Your task to perform on an android device: turn on translation in the chrome app Image 0: 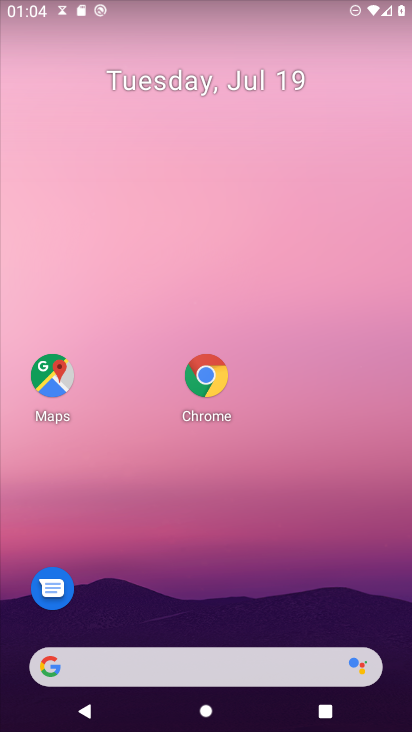
Step 0: press home button
Your task to perform on an android device: turn on translation in the chrome app Image 1: 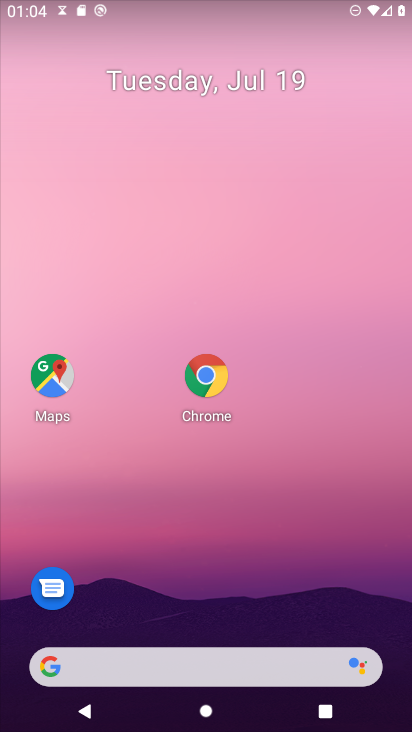
Step 1: click (207, 367)
Your task to perform on an android device: turn on translation in the chrome app Image 2: 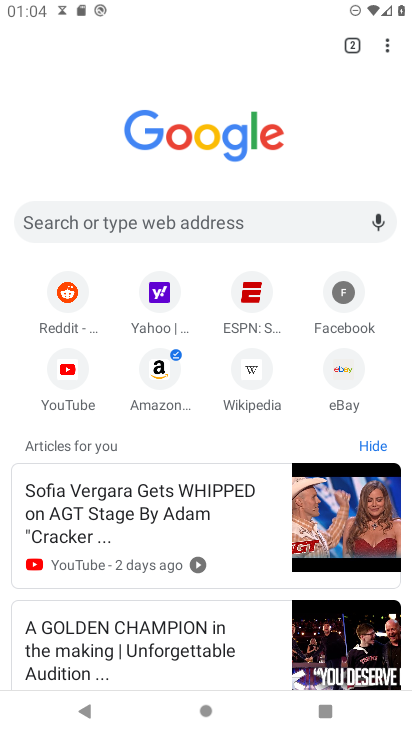
Step 2: drag from (384, 44) to (229, 377)
Your task to perform on an android device: turn on translation in the chrome app Image 3: 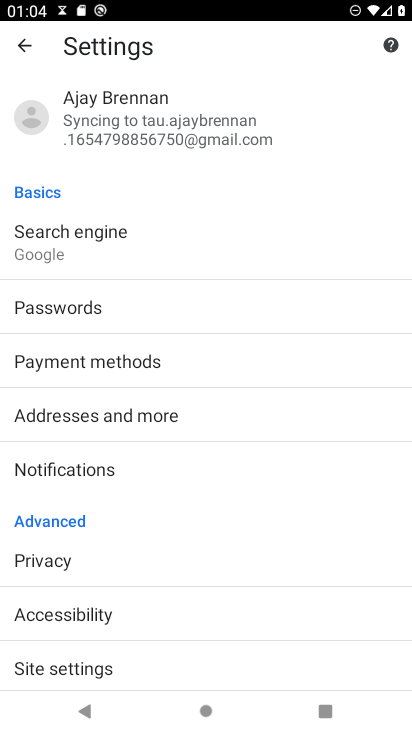
Step 3: drag from (132, 521) to (143, 94)
Your task to perform on an android device: turn on translation in the chrome app Image 4: 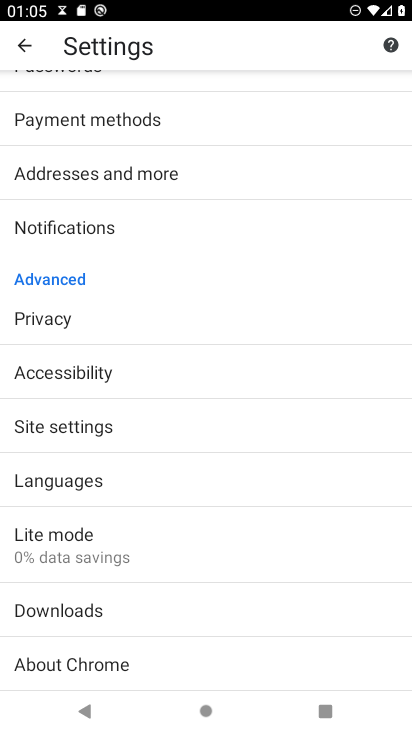
Step 4: click (95, 482)
Your task to perform on an android device: turn on translation in the chrome app Image 5: 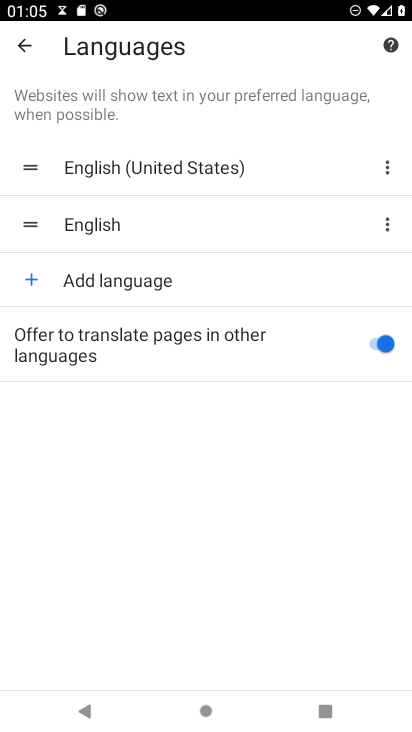
Step 5: task complete